Your task to perform on an android device: Show me recent news Image 0: 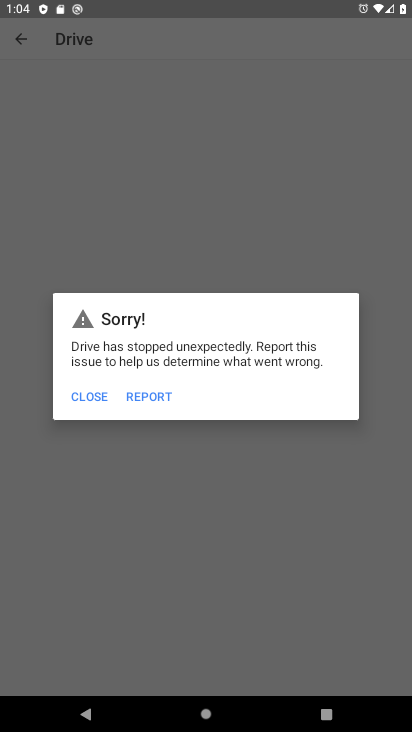
Step 0: press home button
Your task to perform on an android device: Show me recent news Image 1: 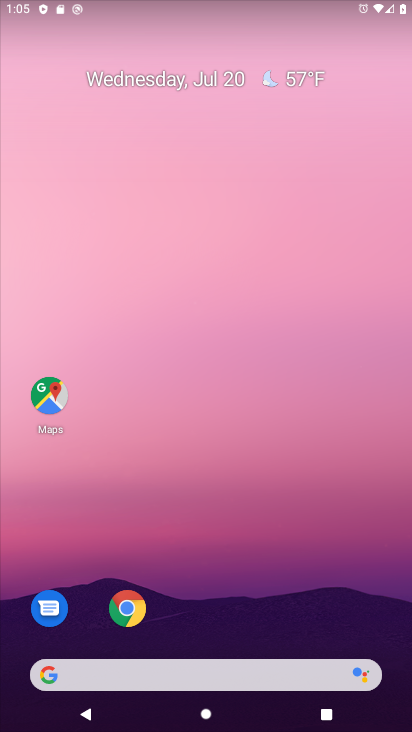
Step 1: click (216, 684)
Your task to perform on an android device: Show me recent news Image 2: 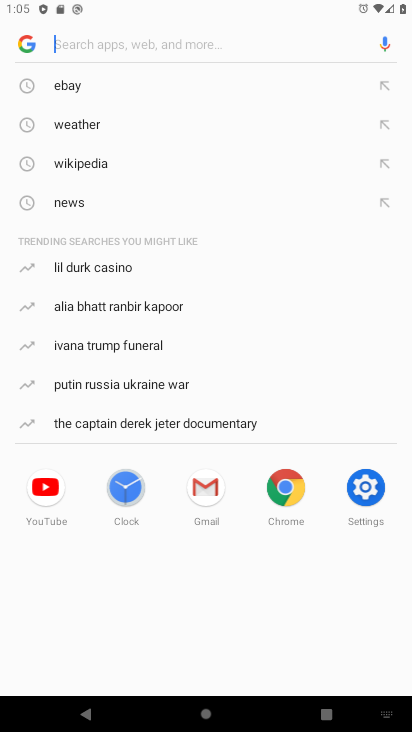
Step 2: type "recent news"
Your task to perform on an android device: Show me recent news Image 3: 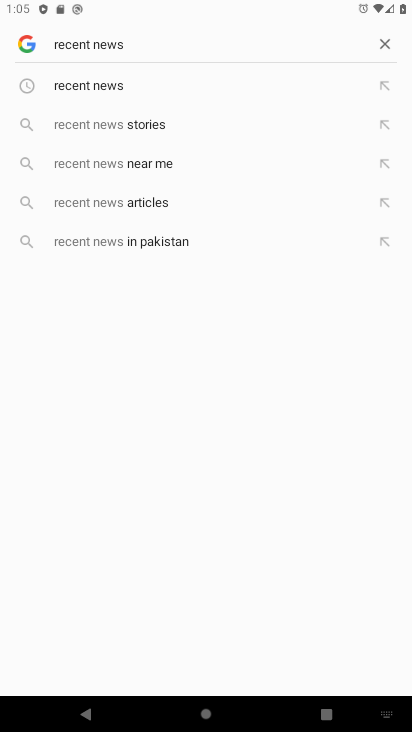
Step 3: click (192, 78)
Your task to perform on an android device: Show me recent news Image 4: 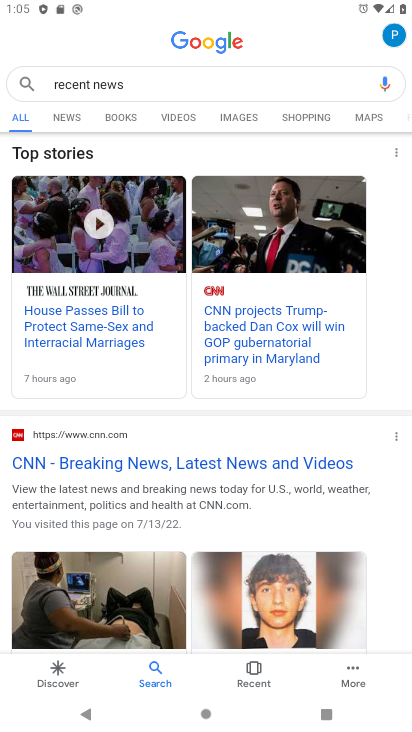
Step 4: task complete